Your task to perform on an android device: open wifi settings Image 0: 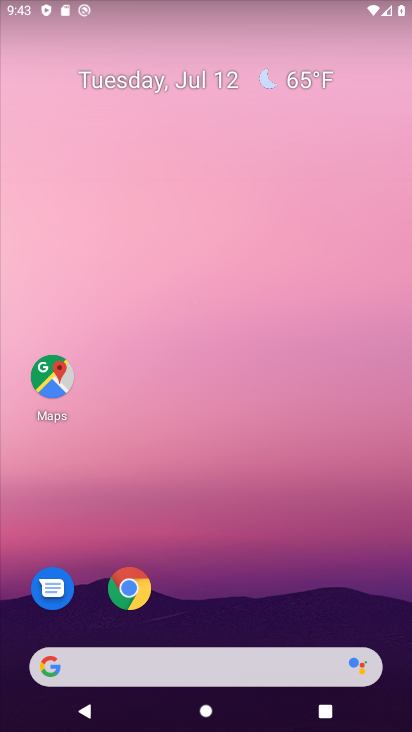
Step 0: drag from (41, 630) to (251, 6)
Your task to perform on an android device: open wifi settings Image 1: 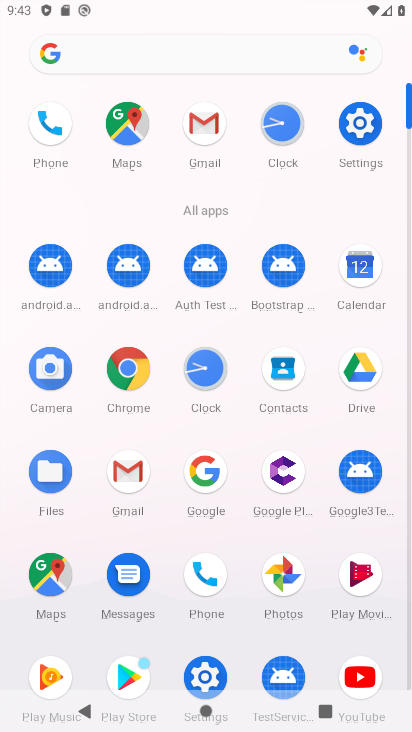
Step 1: click (217, 667)
Your task to perform on an android device: open wifi settings Image 2: 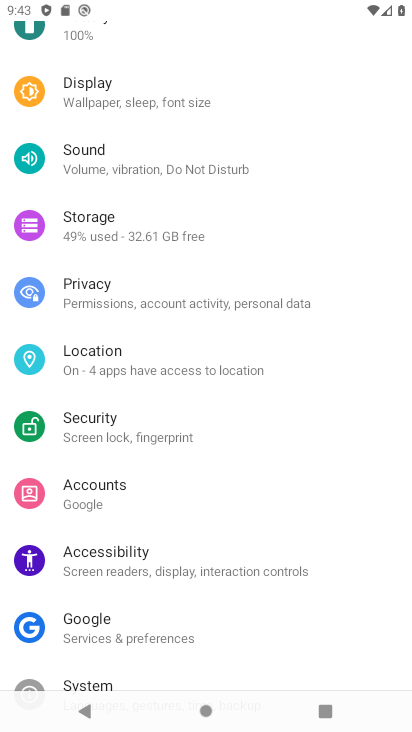
Step 2: drag from (218, 41) to (223, 482)
Your task to perform on an android device: open wifi settings Image 3: 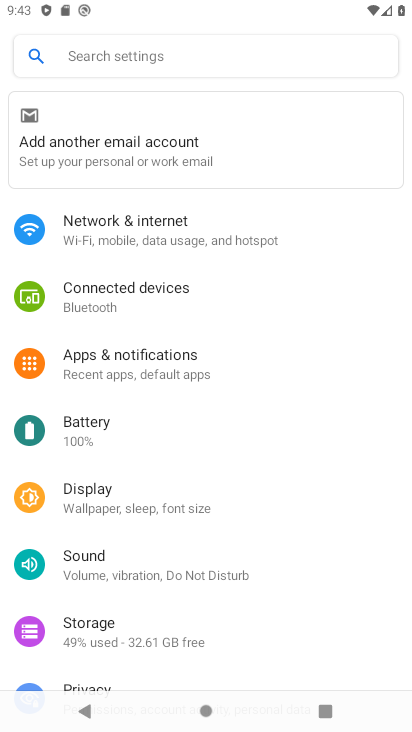
Step 3: click (120, 231)
Your task to perform on an android device: open wifi settings Image 4: 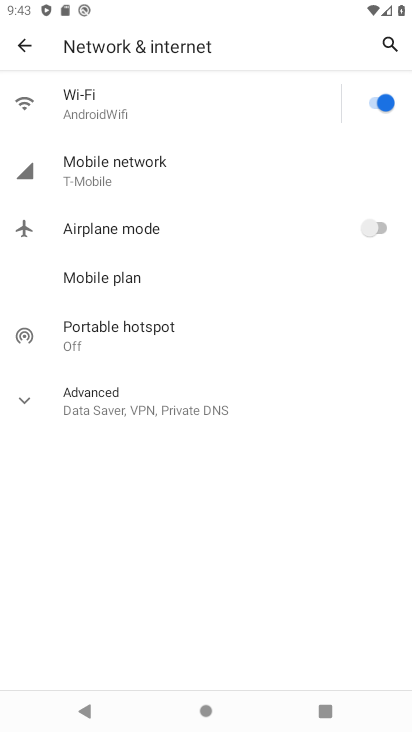
Step 4: task complete